Your task to perform on an android device: Open battery settings Image 0: 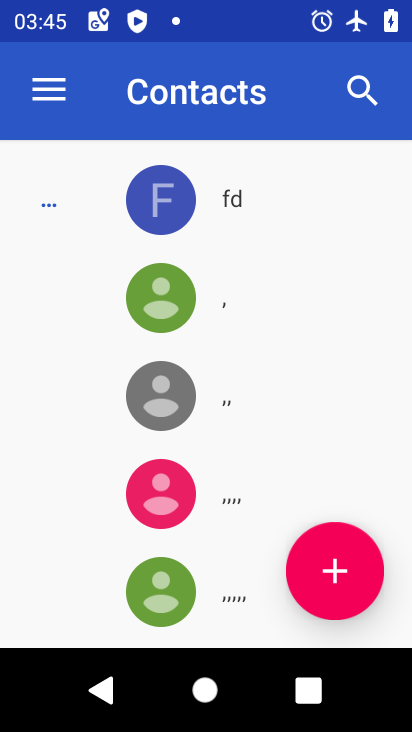
Step 0: press home button
Your task to perform on an android device: Open battery settings Image 1: 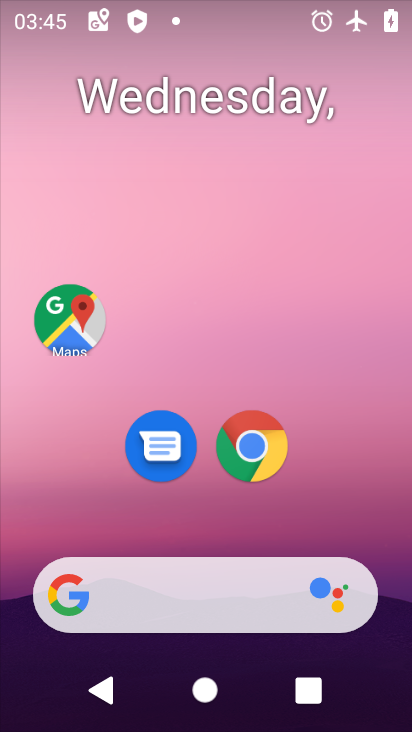
Step 1: drag from (213, 533) to (199, 167)
Your task to perform on an android device: Open battery settings Image 2: 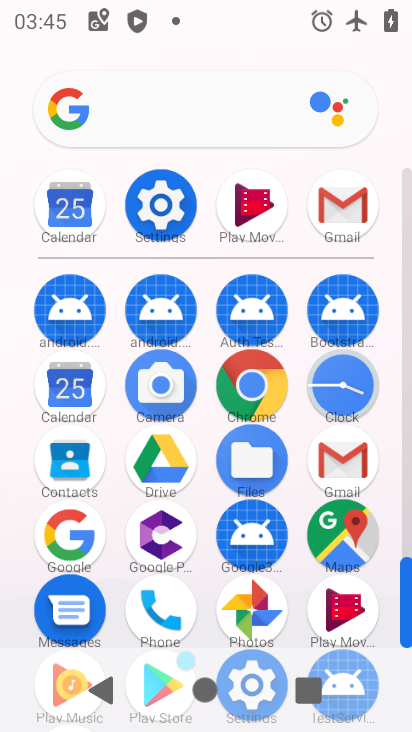
Step 2: click (186, 199)
Your task to perform on an android device: Open battery settings Image 3: 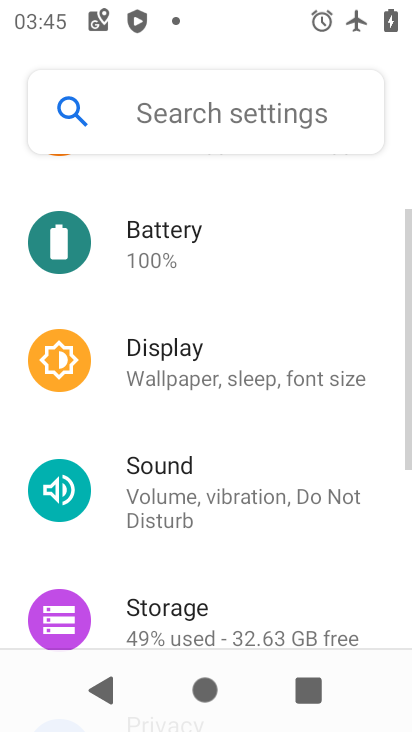
Step 3: click (219, 265)
Your task to perform on an android device: Open battery settings Image 4: 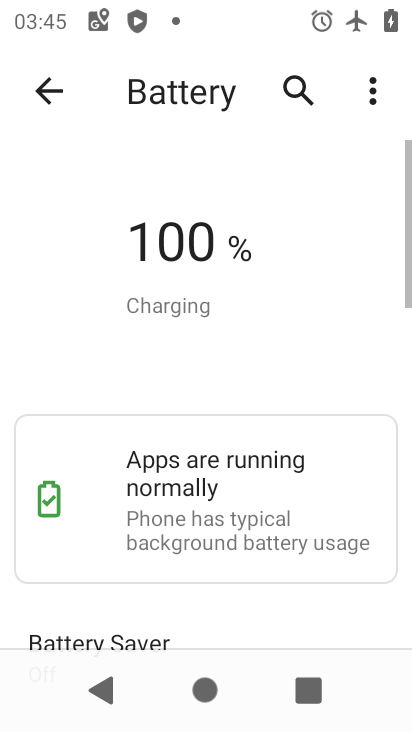
Step 4: task complete